Your task to perform on an android device: Go to calendar. Show me events next week Image 0: 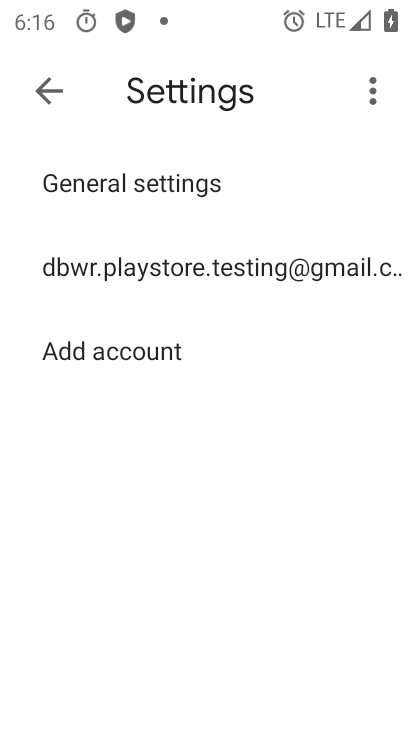
Step 0: press home button
Your task to perform on an android device: Go to calendar. Show me events next week Image 1: 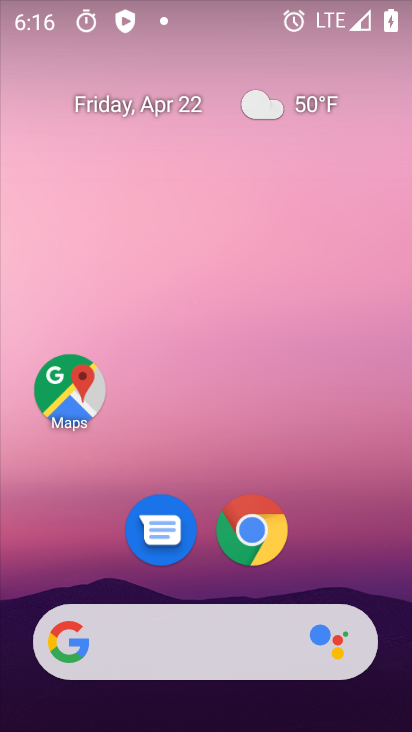
Step 1: drag from (376, 551) to (263, 17)
Your task to perform on an android device: Go to calendar. Show me events next week Image 2: 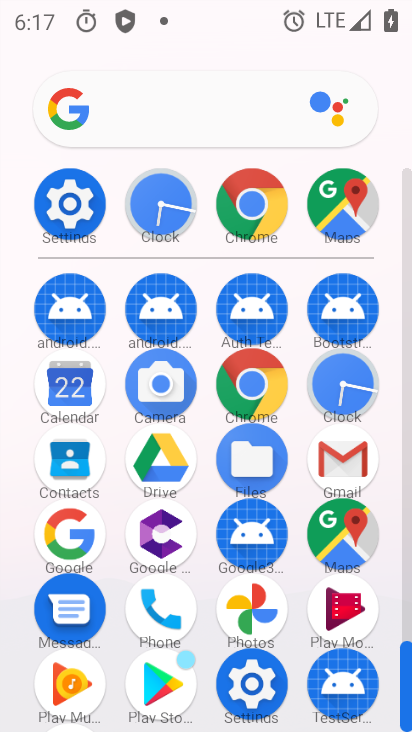
Step 2: click (75, 397)
Your task to perform on an android device: Go to calendar. Show me events next week Image 3: 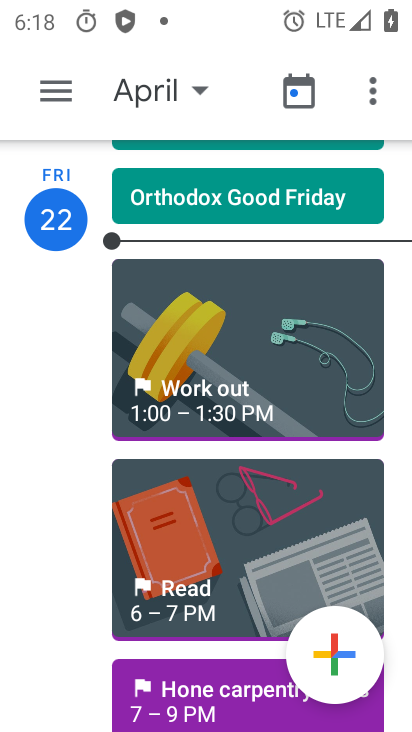
Step 3: click (147, 87)
Your task to perform on an android device: Go to calendar. Show me events next week Image 4: 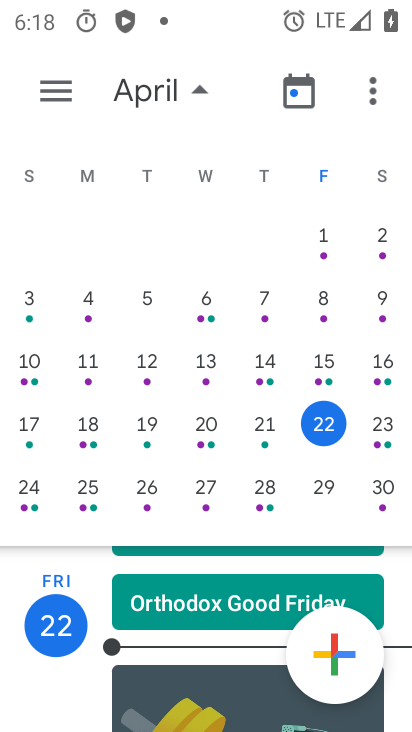
Step 4: click (327, 503)
Your task to perform on an android device: Go to calendar. Show me events next week Image 5: 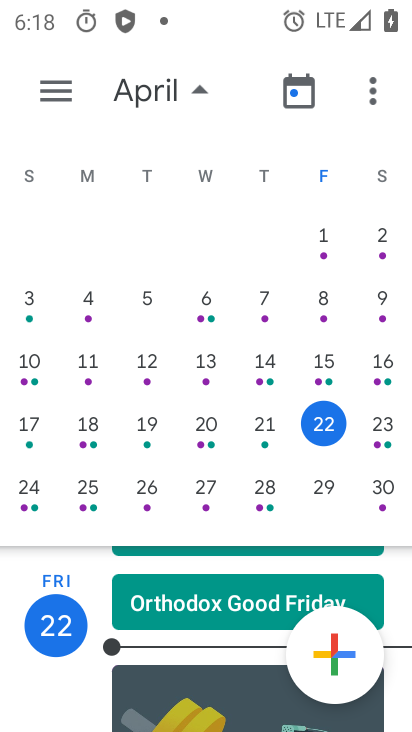
Step 5: click (324, 489)
Your task to perform on an android device: Go to calendar. Show me events next week Image 6: 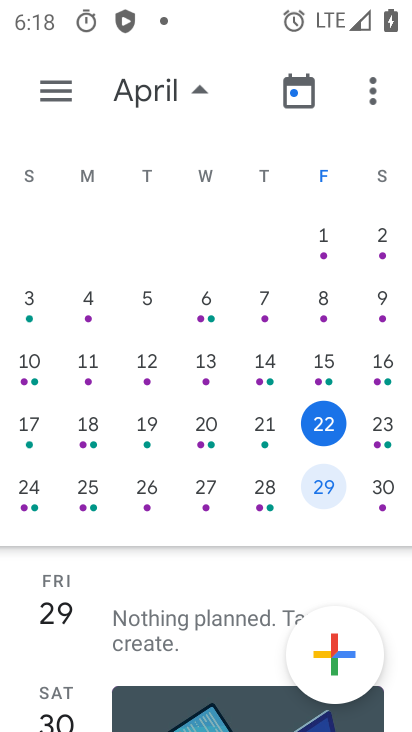
Step 6: task complete